Your task to perform on an android device: Search for "logitech g pro" on bestbuy, select the first entry, add it to the cart, then select checkout. Image 0: 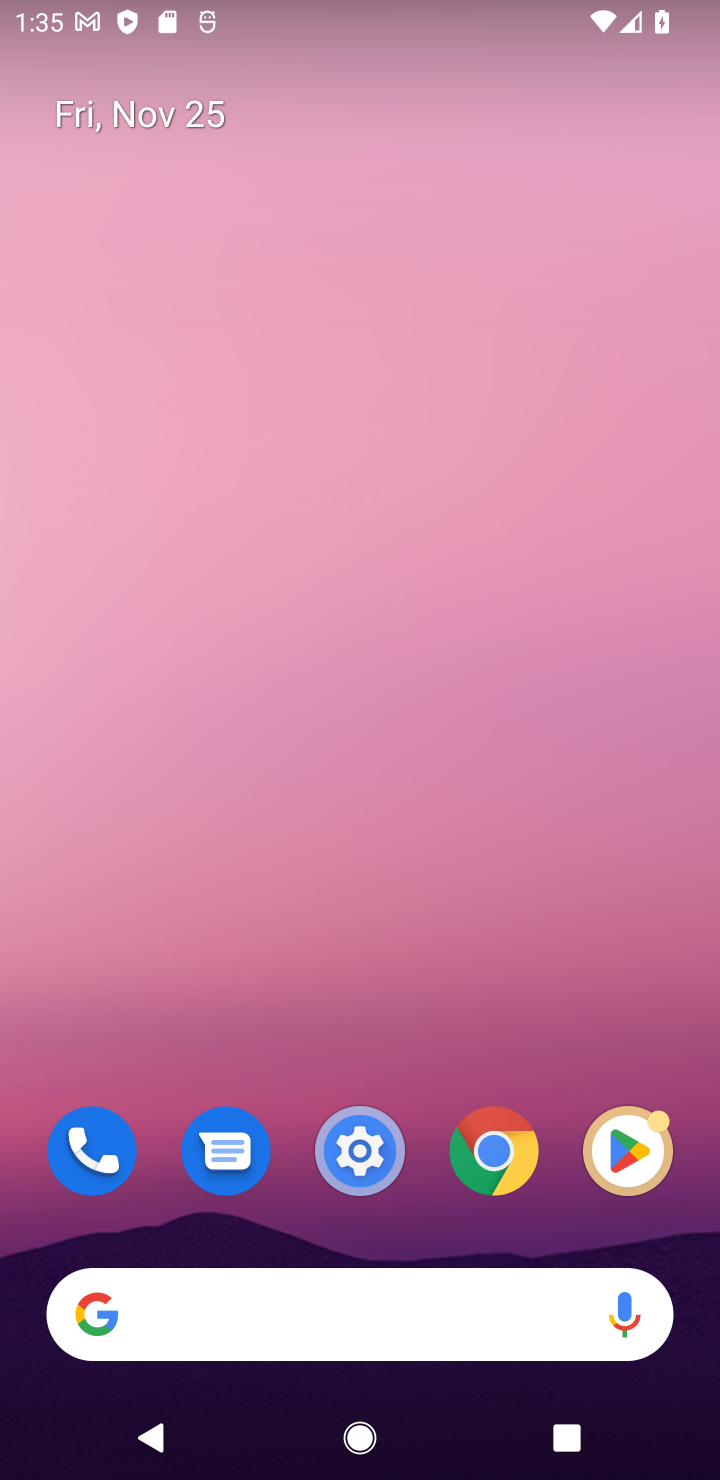
Step 0: click (293, 1289)
Your task to perform on an android device: Search for "logitech g pro" on bestbuy, select the first entry, add it to the cart, then select checkout. Image 1: 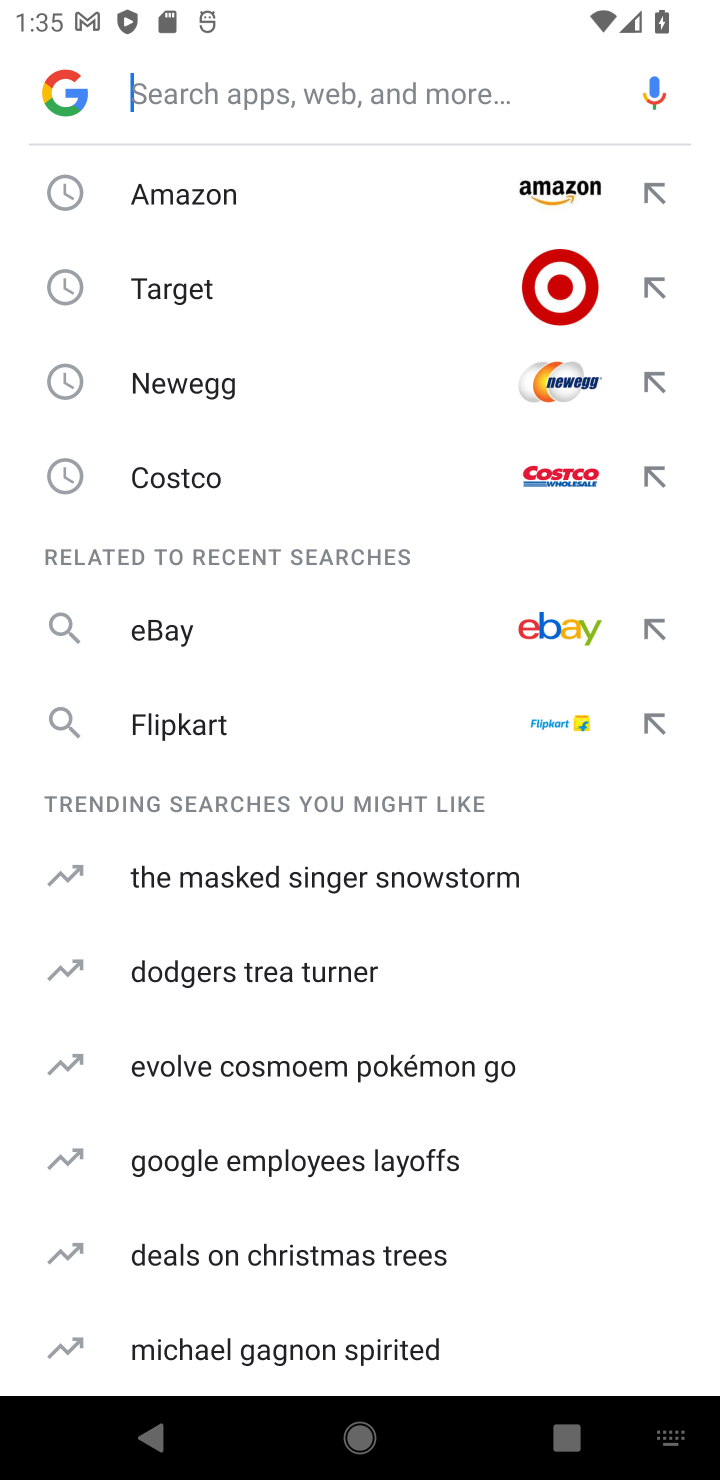
Step 1: type "bestbuy"
Your task to perform on an android device: Search for "logitech g pro" on bestbuy, select the first entry, add it to the cart, then select checkout. Image 2: 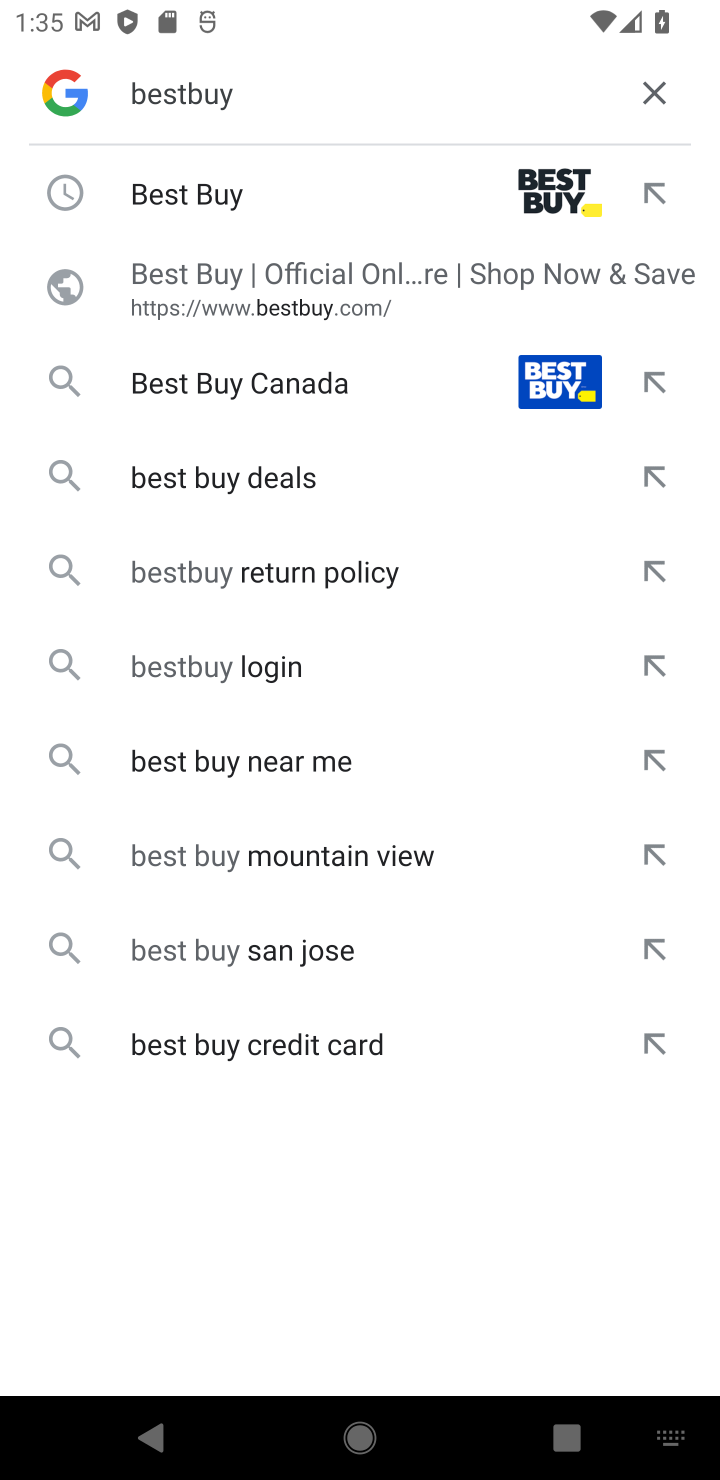
Step 2: click (208, 206)
Your task to perform on an android device: Search for "logitech g pro" on bestbuy, select the first entry, add it to the cart, then select checkout. Image 3: 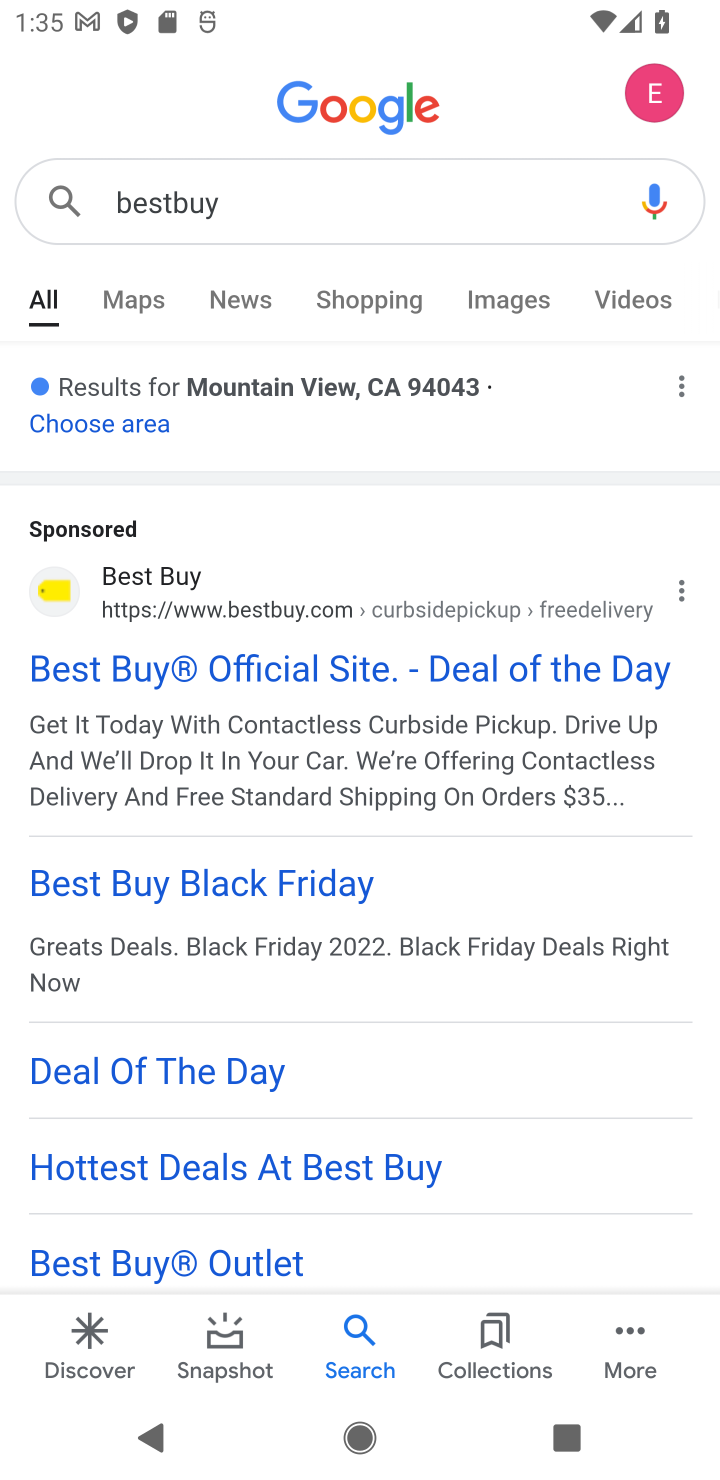
Step 3: click (293, 646)
Your task to perform on an android device: Search for "logitech g pro" on bestbuy, select the first entry, add it to the cart, then select checkout. Image 4: 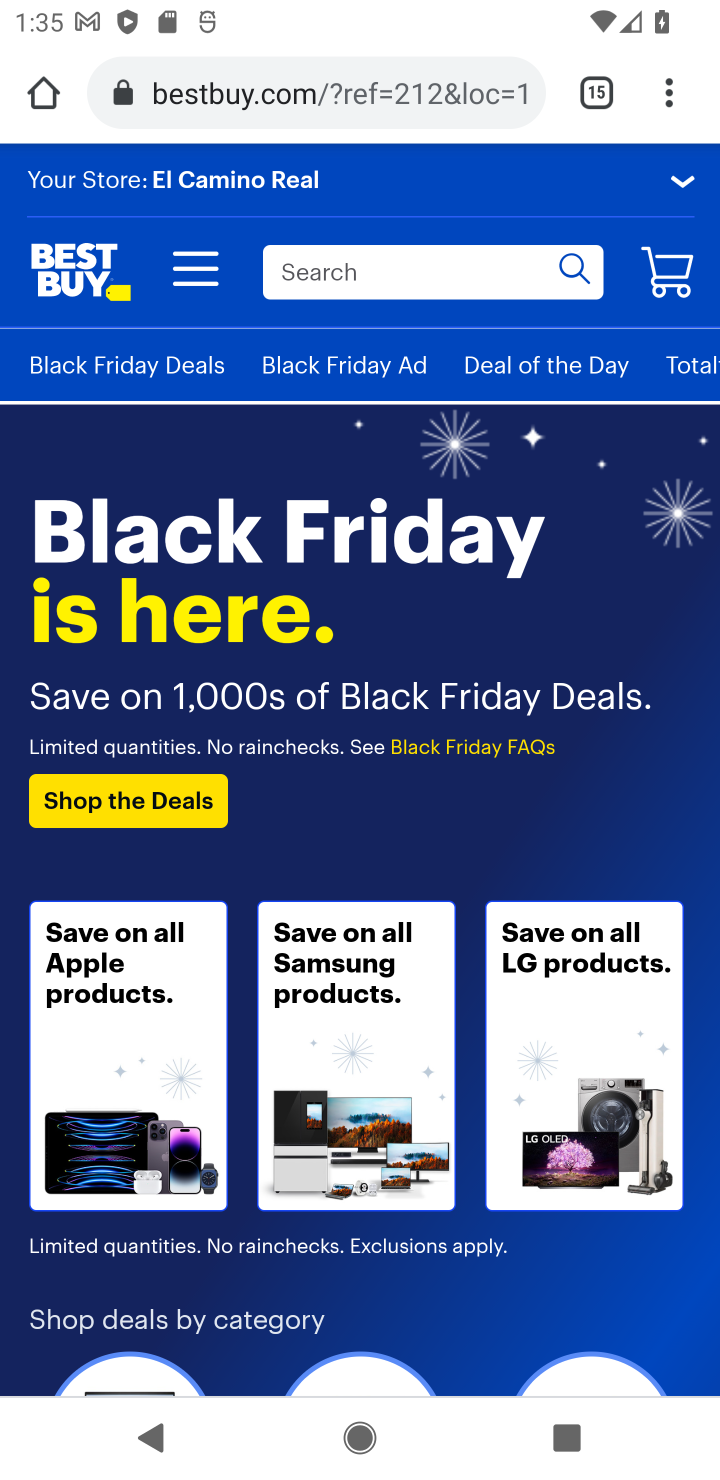
Step 4: click (320, 267)
Your task to perform on an android device: Search for "logitech g pro" on bestbuy, select the first entry, add it to the cart, then select checkout. Image 5: 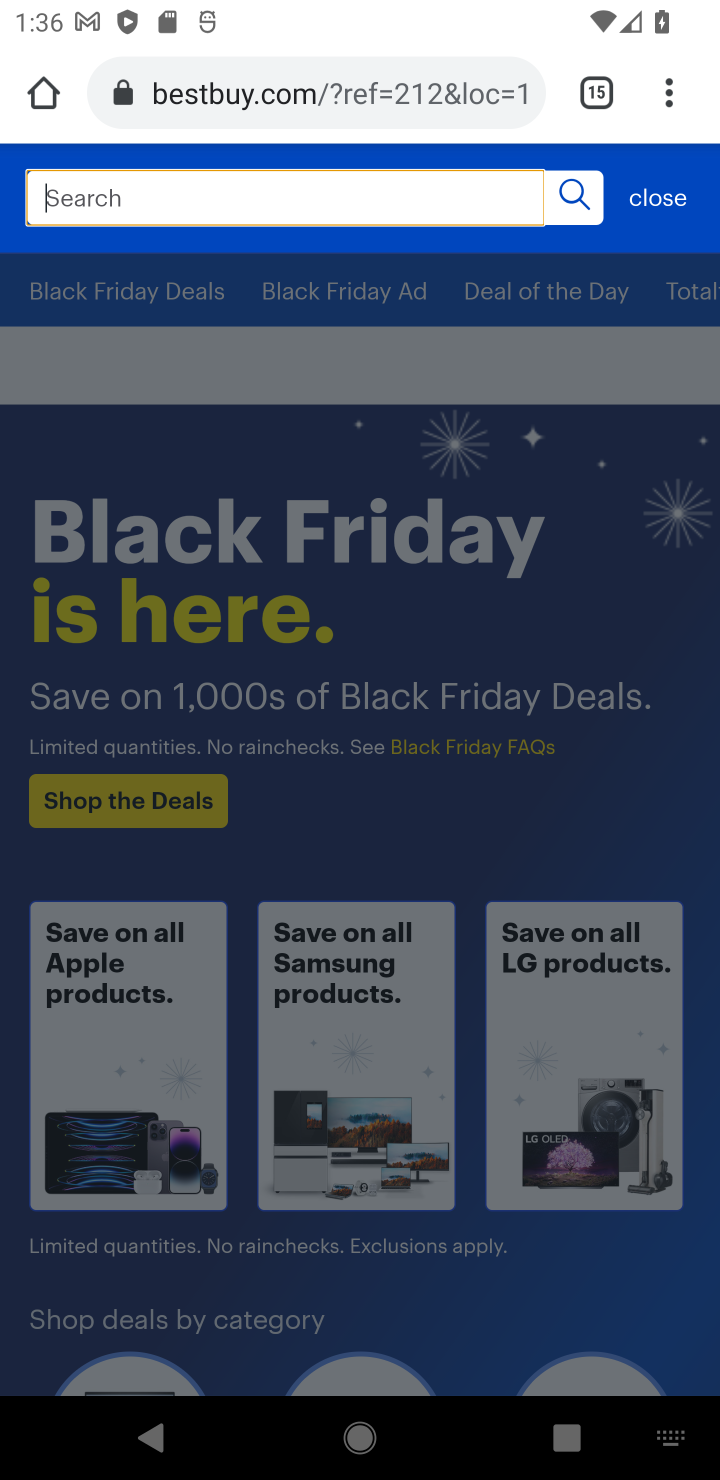
Step 5: type "logitech g pro"
Your task to perform on an android device: Search for "logitech g pro" on bestbuy, select the first entry, add it to the cart, then select checkout. Image 6: 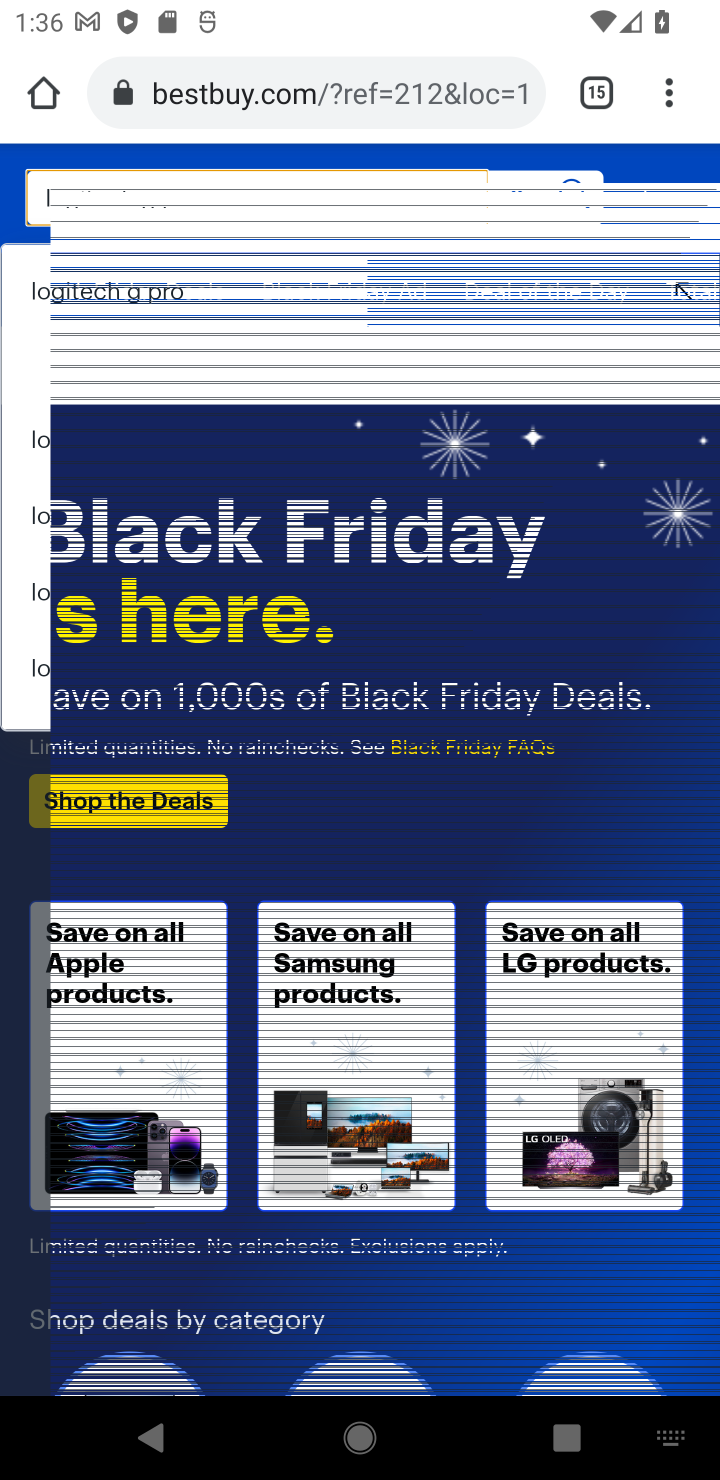
Step 6: click (285, 289)
Your task to perform on an android device: Search for "logitech g pro" on bestbuy, select the first entry, add it to the cart, then select checkout. Image 7: 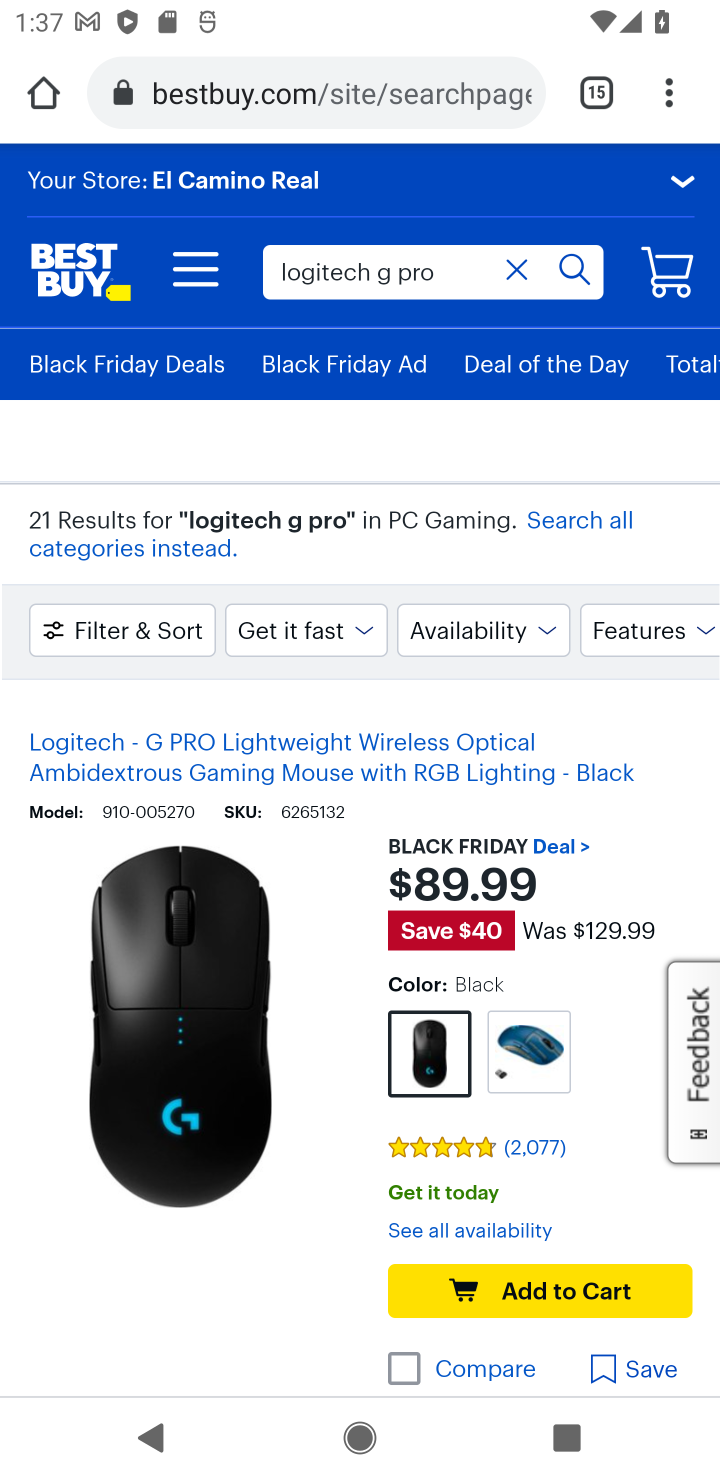
Step 7: click (587, 1269)
Your task to perform on an android device: Search for "logitech g pro" on bestbuy, select the first entry, add it to the cart, then select checkout. Image 8: 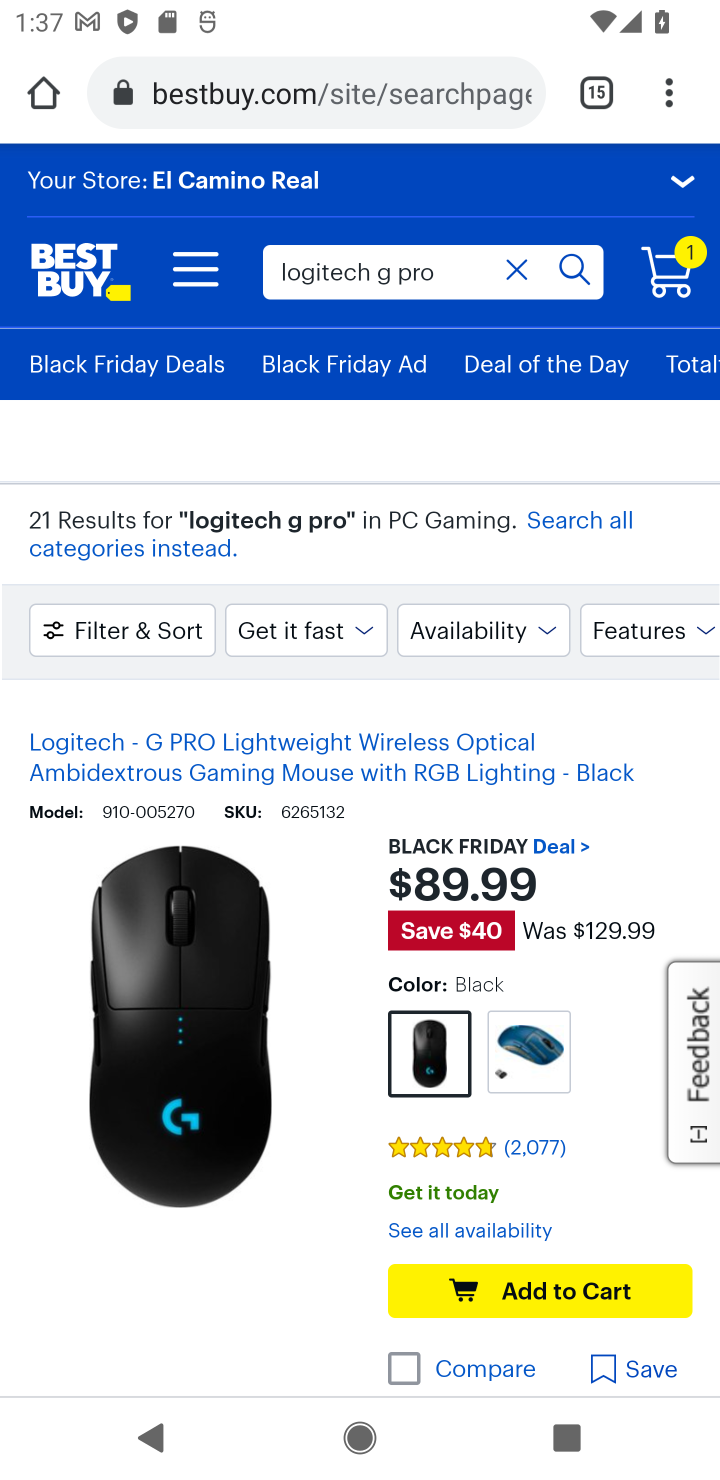
Step 8: task complete